Your task to perform on an android device: Open wifi settings Image 0: 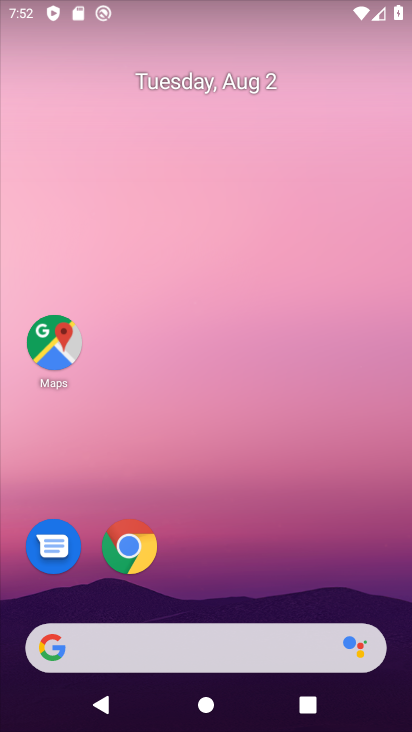
Step 0: drag from (402, 422) to (64, 321)
Your task to perform on an android device: Open wifi settings Image 1: 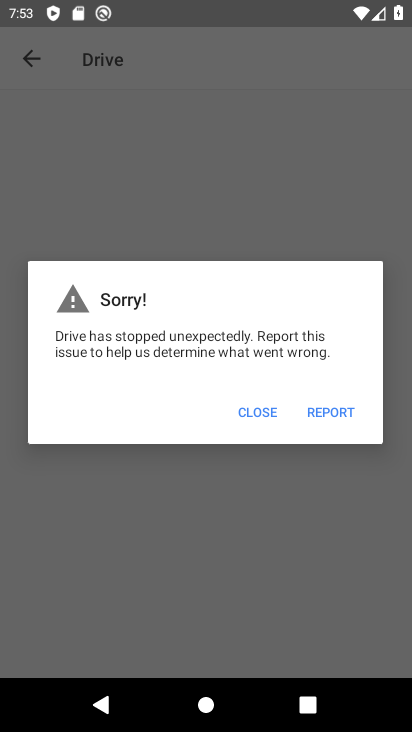
Step 1: press home button
Your task to perform on an android device: Open wifi settings Image 2: 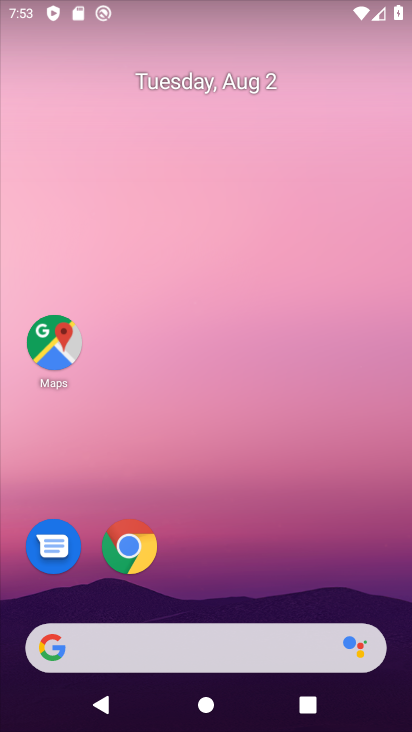
Step 2: drag from (172, 555) to (340, 25)
Your task to perform on an android device: Open wifi settings Image 3: 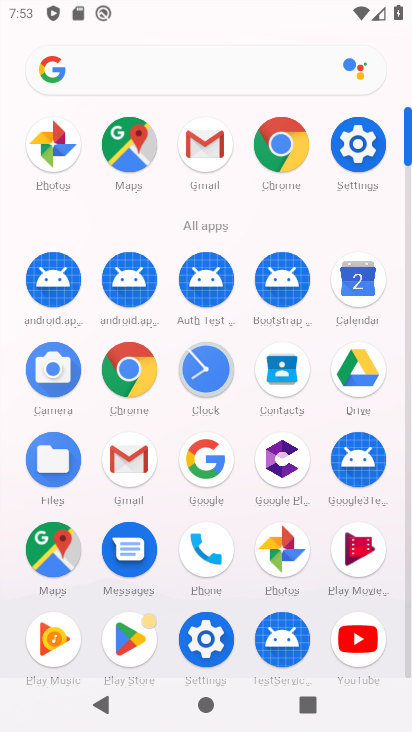
Step 3: click (373, 140)
Your task to perform on an android device: Open wifi settings Image 4: 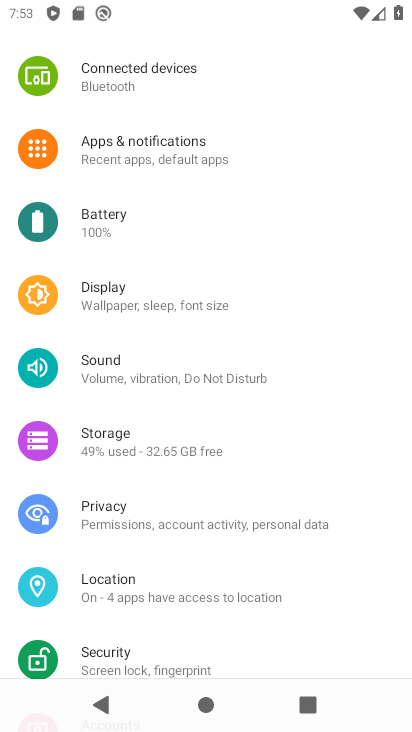
Step 4: drag from (140, 126) to (125, 354)
Your task to perform on an android device: Open wifi settings Image 5: 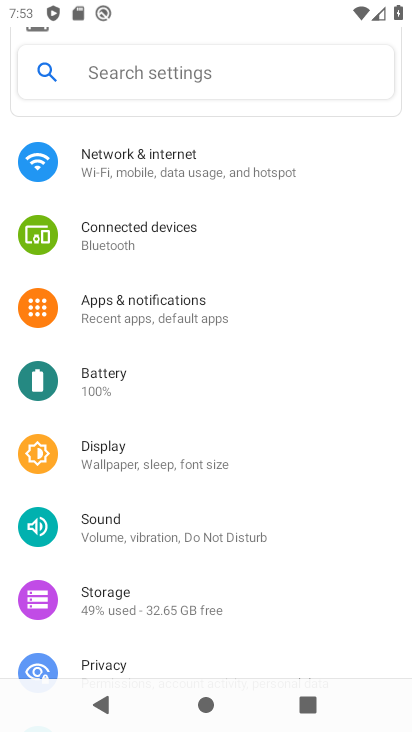
Step 5: click (162, 178)
Your task to perform on an android device: Open wifi settings Image 6: 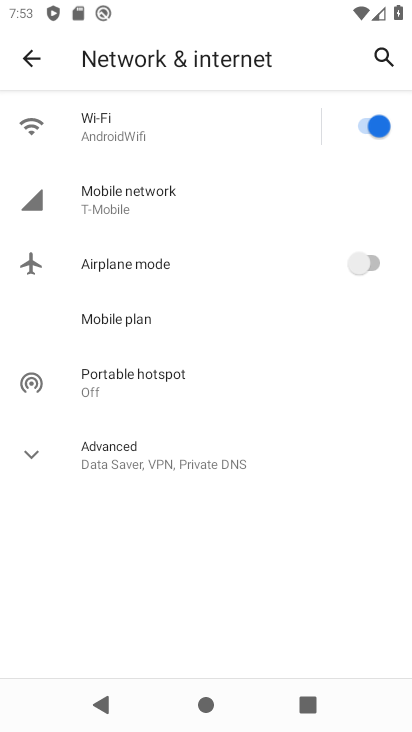
Step 6: click (119, 119)
Your task to perform on an android device: Open wifi settings Image 7: 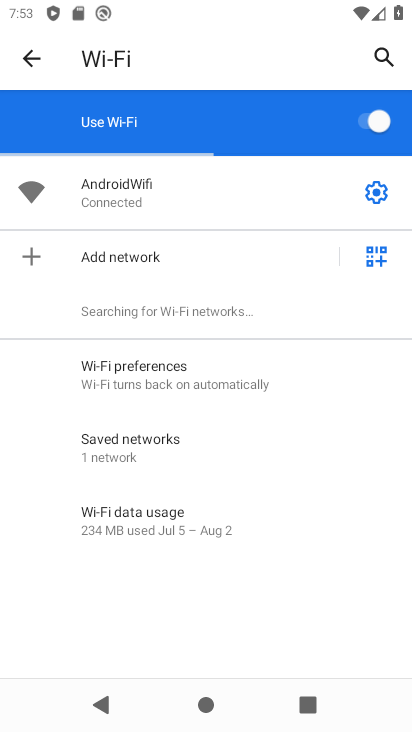
Step 7: task complete